Your task to perform on an android device: Is it going to rain today? Image 0: 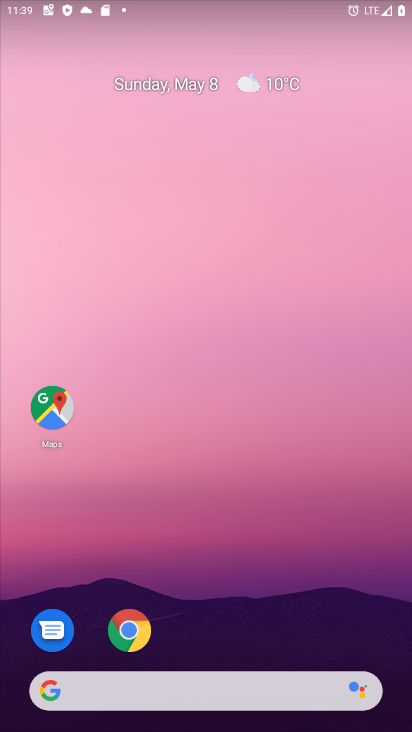
Step 0: click (195, 700)
Your task to perform on an android device: Is it going to rain today? Image 1: 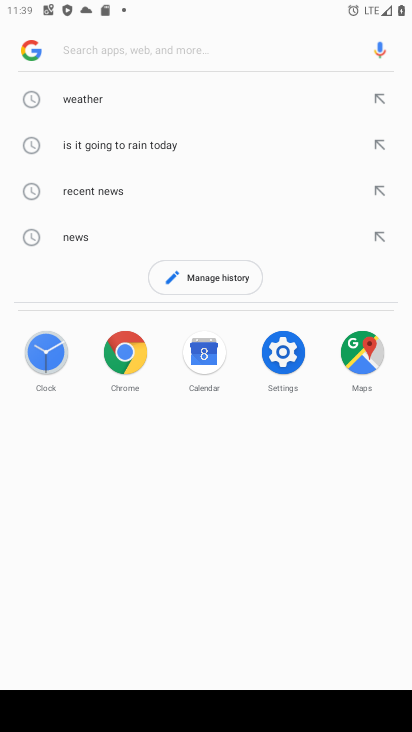
Step 1: click (193, 156)
Your task to perform on an android device: Is it going to rain today? Image 2: 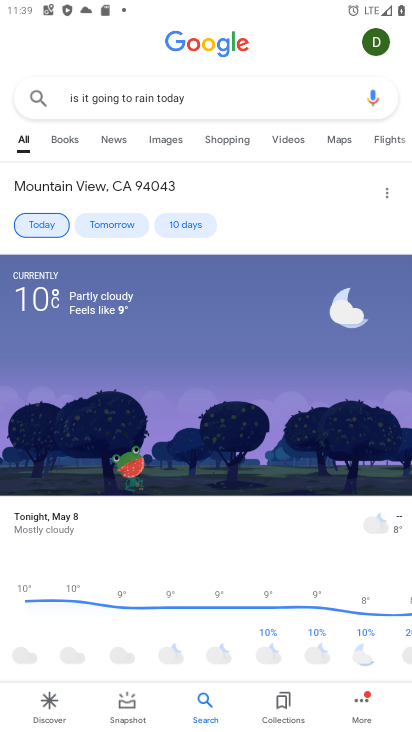
Step 2: task complete